Your task to perform on an android device: install app "Life360: Find Family & Friends" Image 0: 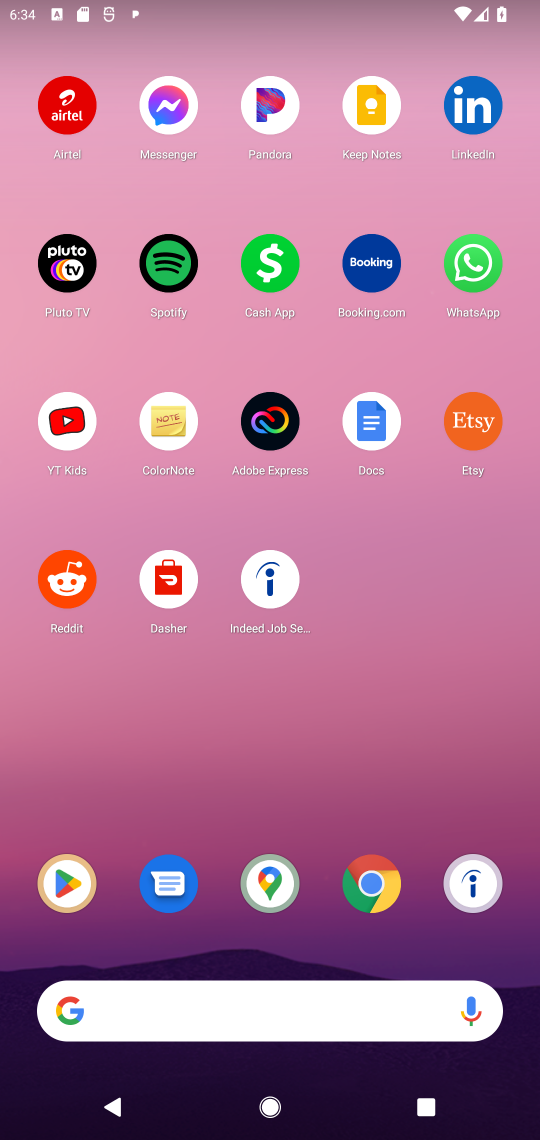
Step 0: click (43, 879)
Your task to perform on an android device: install app "Life360: Find Family & Friends" Image 1: 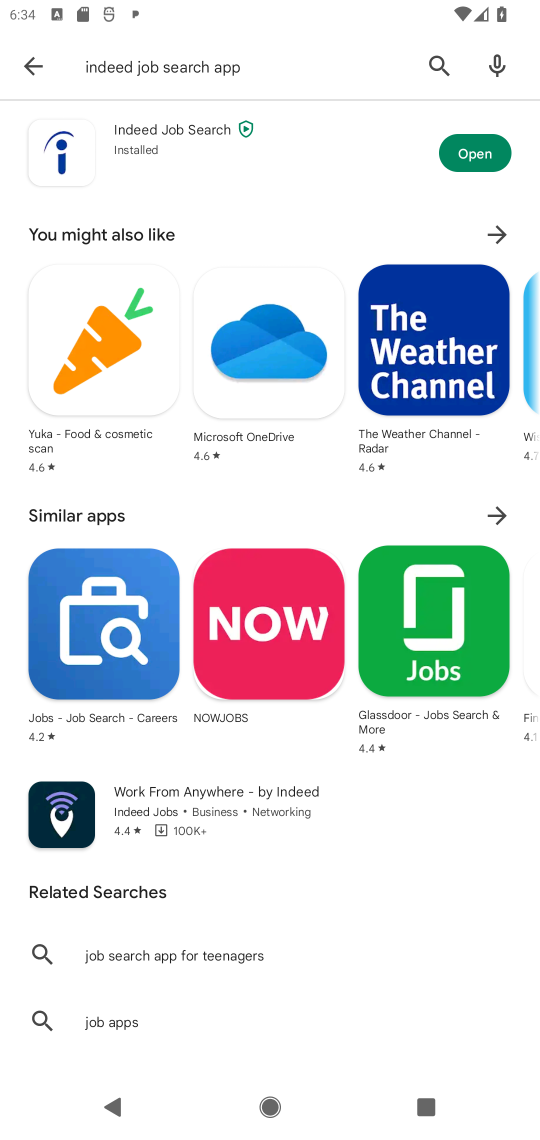
Step 1: click (31, 63)
Your task to perform on an android device: install app "Life360: Find Family & Friends" Image 2: 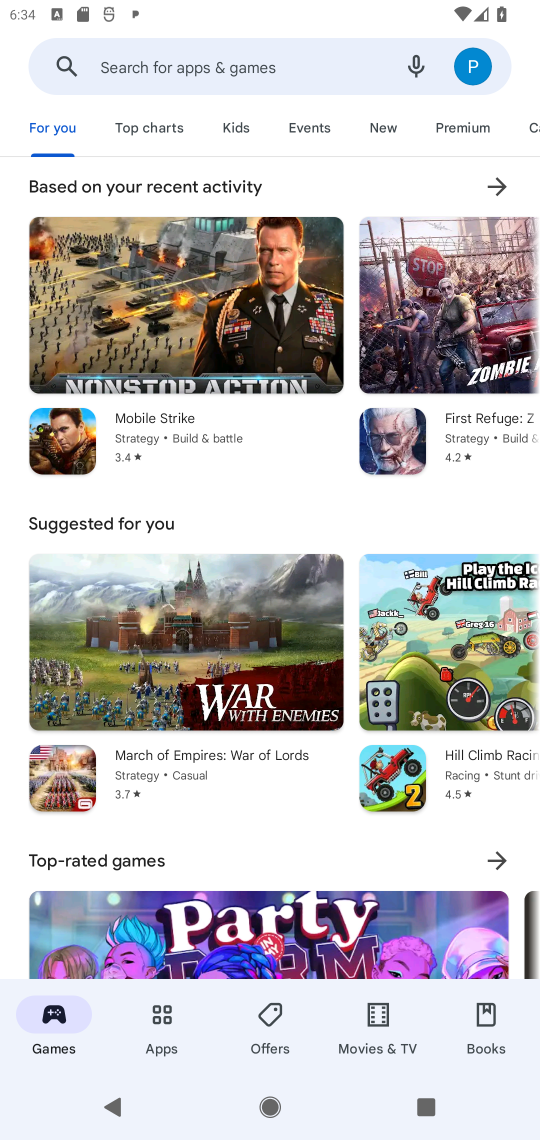
Step 2: click (163, 67)
Your task to perform on an android device: install app "Life360: Find Family & Friends" Image 3: 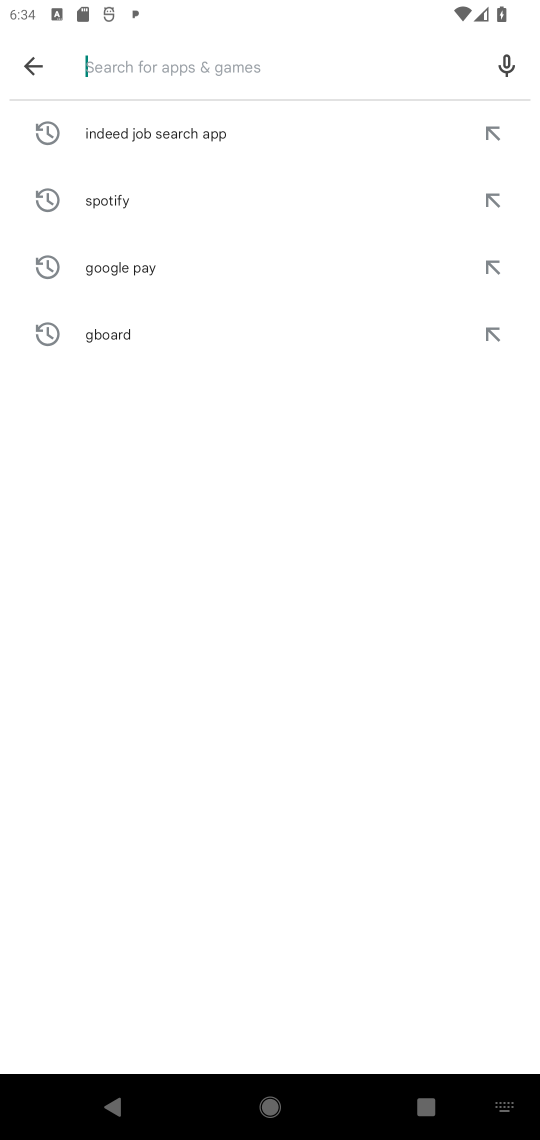
Step 3: type "Life360: Find Family & Friends"
Your task to perform on an android device: install app "Life360: Find Family & Friends" Image 4: 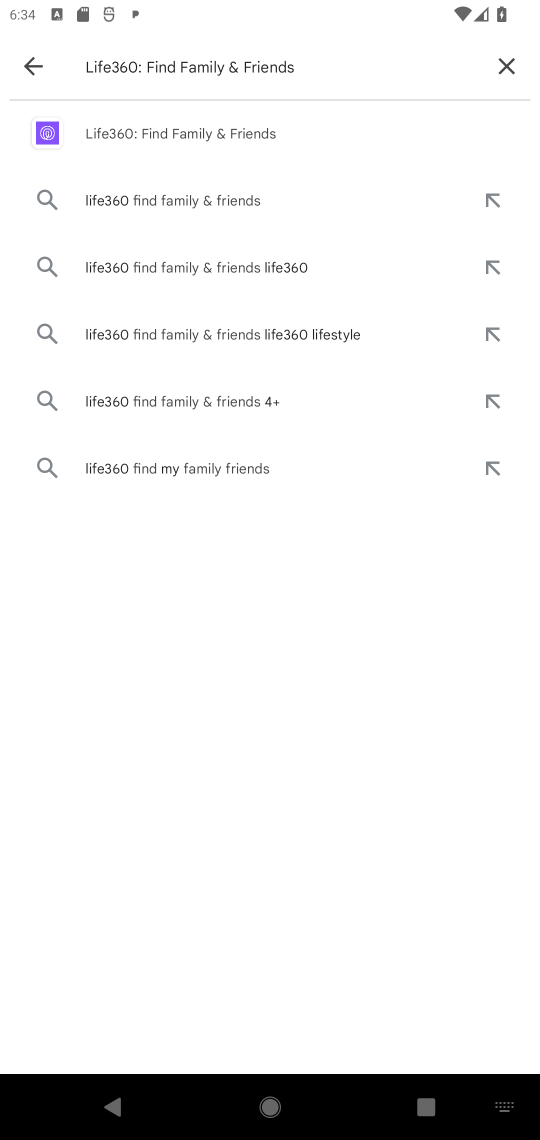
Step 4: click (218, 142)
Your task to perform on an android device: install app "Life360: Find Family & Friends" Image 5: 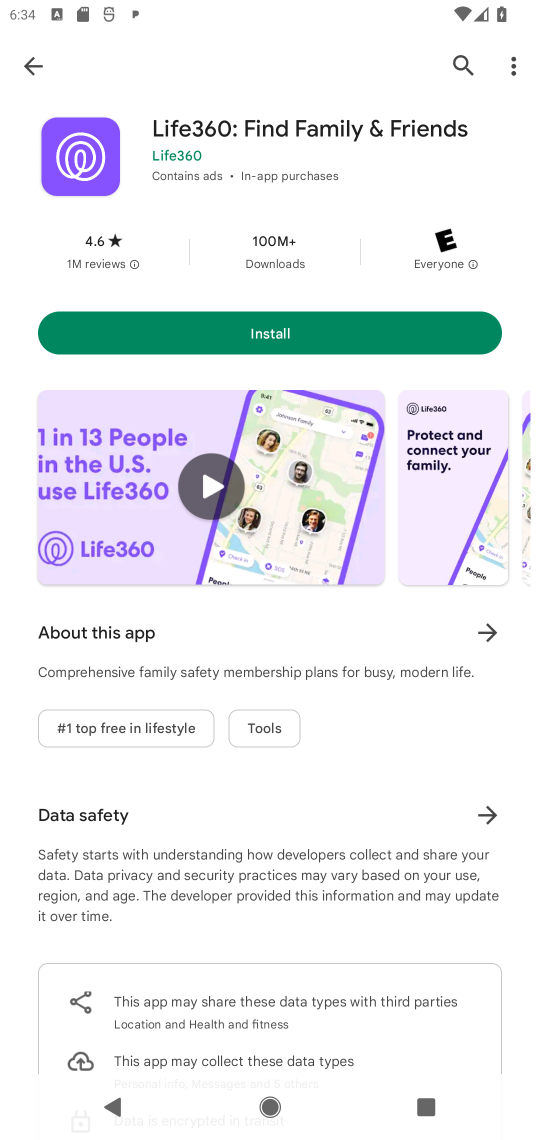
Step 5: click (266, 335)
Your task to perform on an android device: install app "Life360: Find Family & Friends" Image 6: 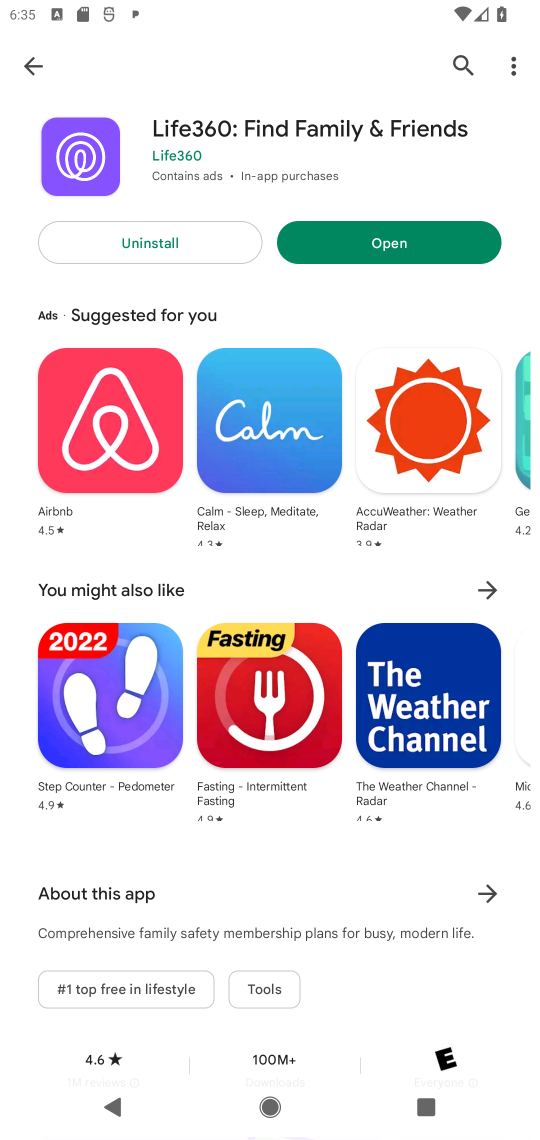
Step 6: click (359, 237)
Your task to perform on an android device: install app "Life360: Find Family & Friends" Image 7: 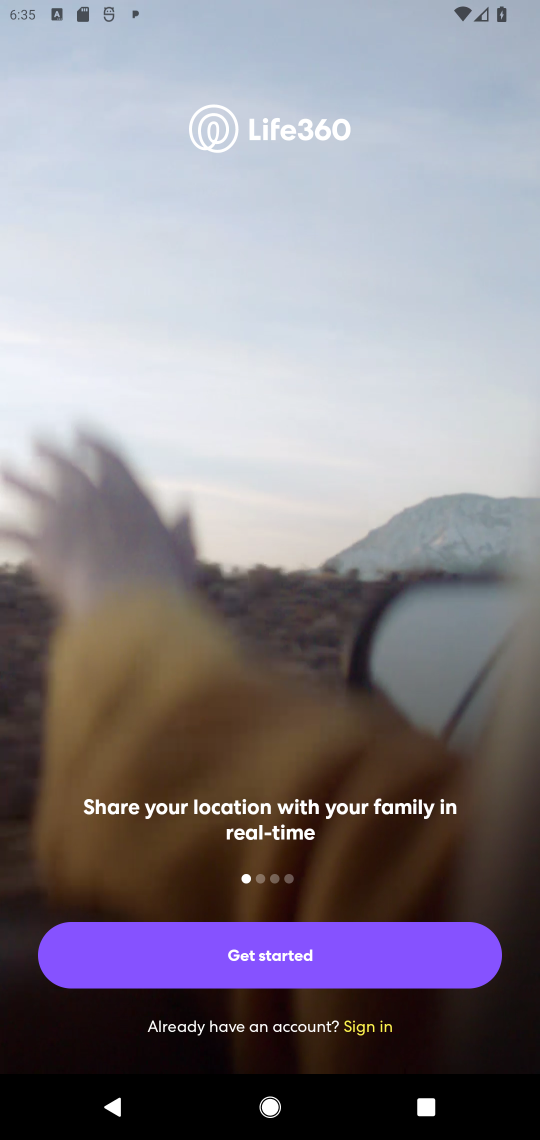
Step 7: task complete